Your task to perform on an android device: set an alarm Image 0: 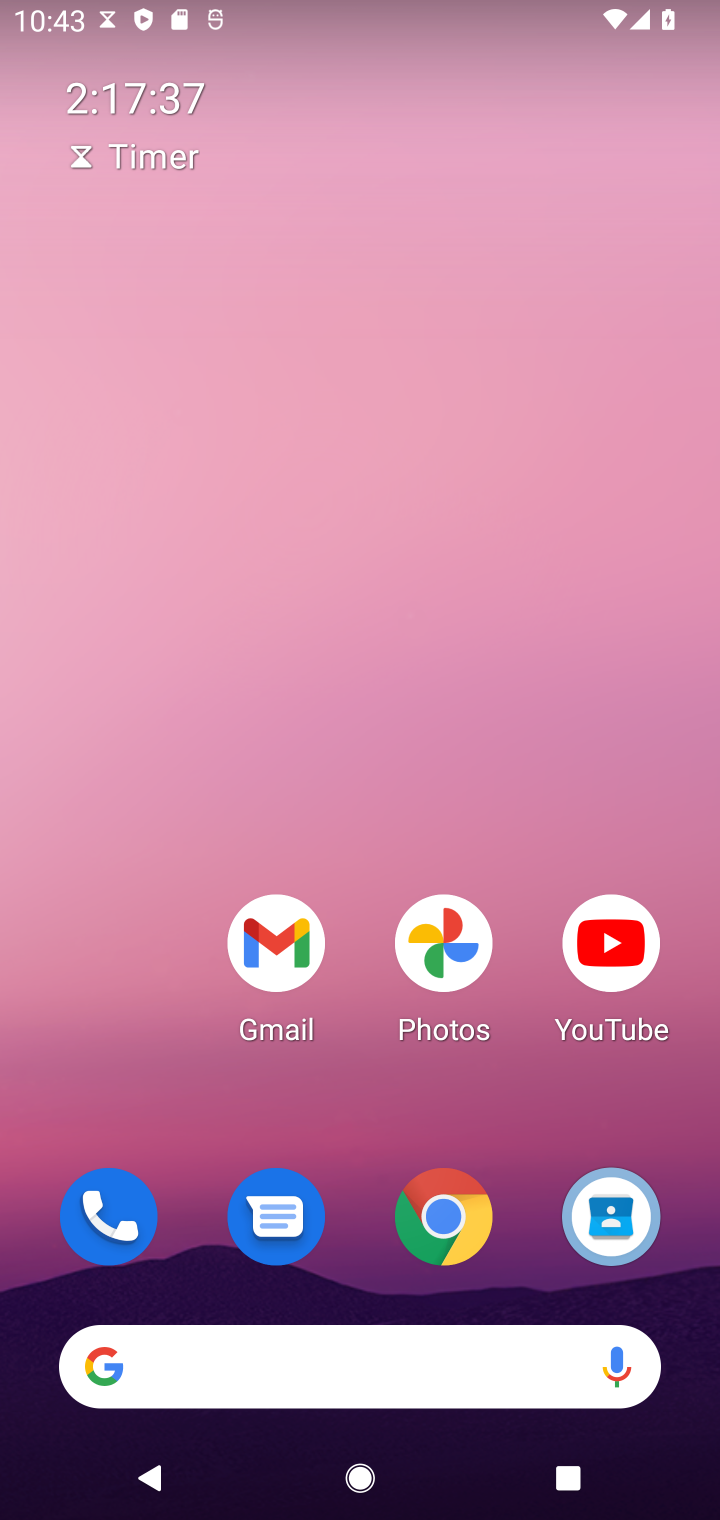
Step 0: drag from (172, 1065) to (282, 6)
Your task to perform on an android device: set an alarm Image 1: 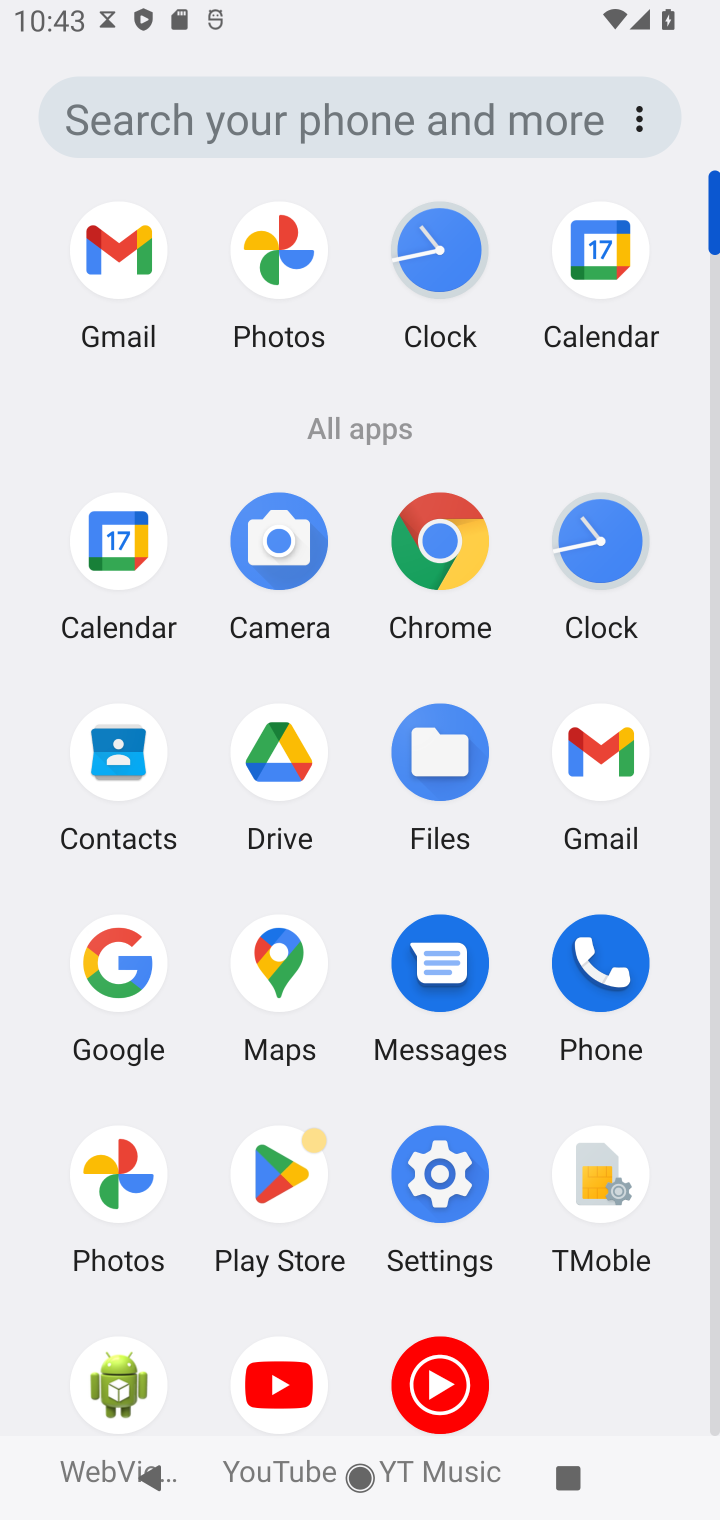
Step 1: click (594, 544)
Your task to perform on an android device: set an alarm Image 2: 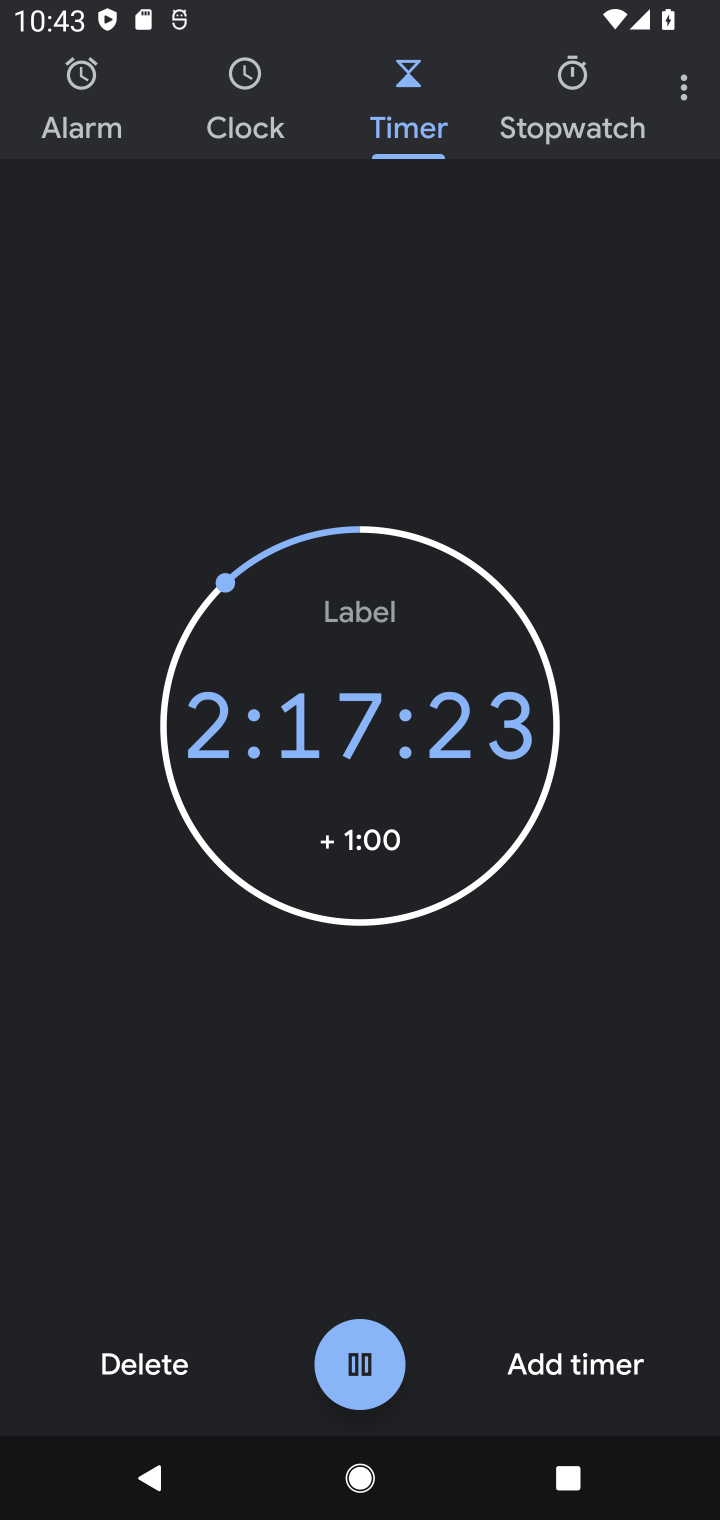
Step 2: click (110, 106)
Your task to perform on an android device: set an alarm Image 3: 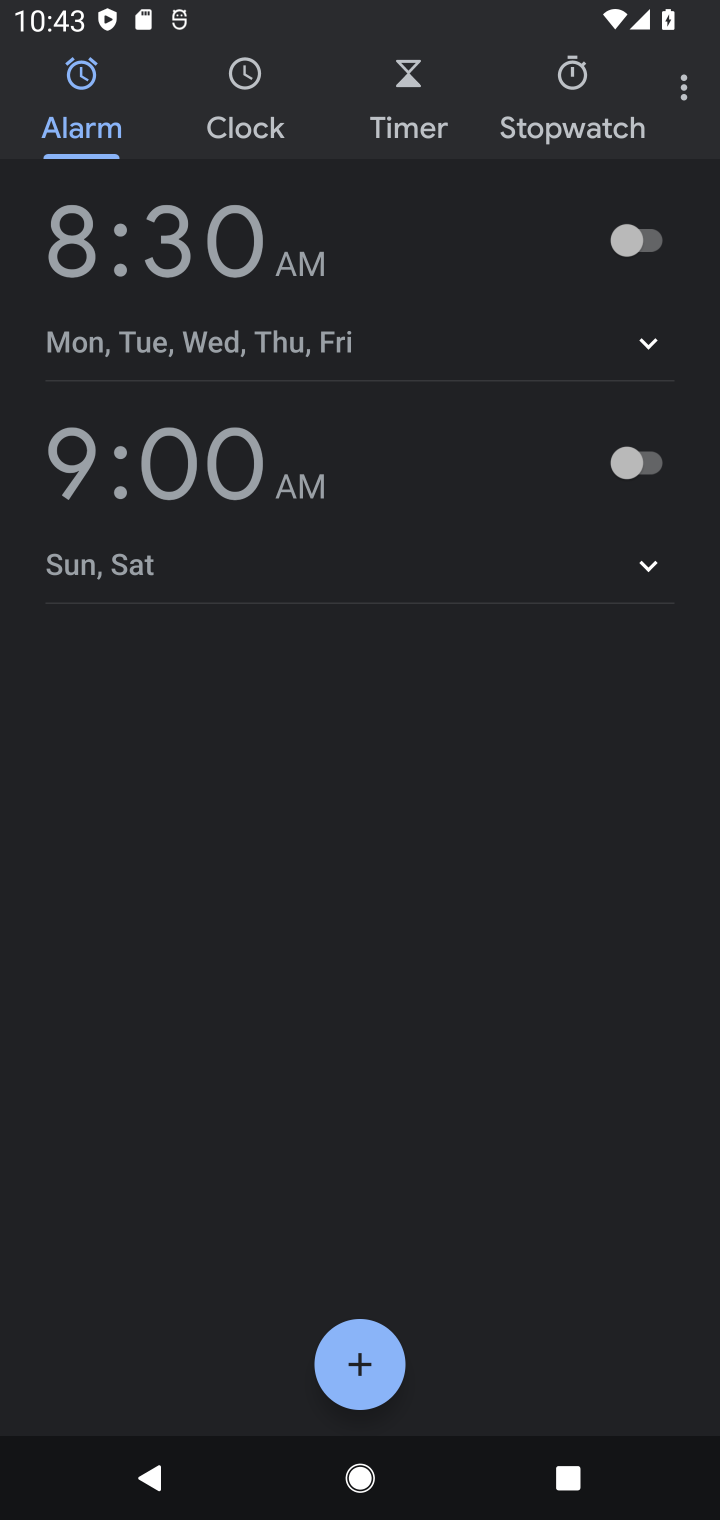
Step 3: click (654, 256)
Your task to perform on an android device: set an alarm Image 4: 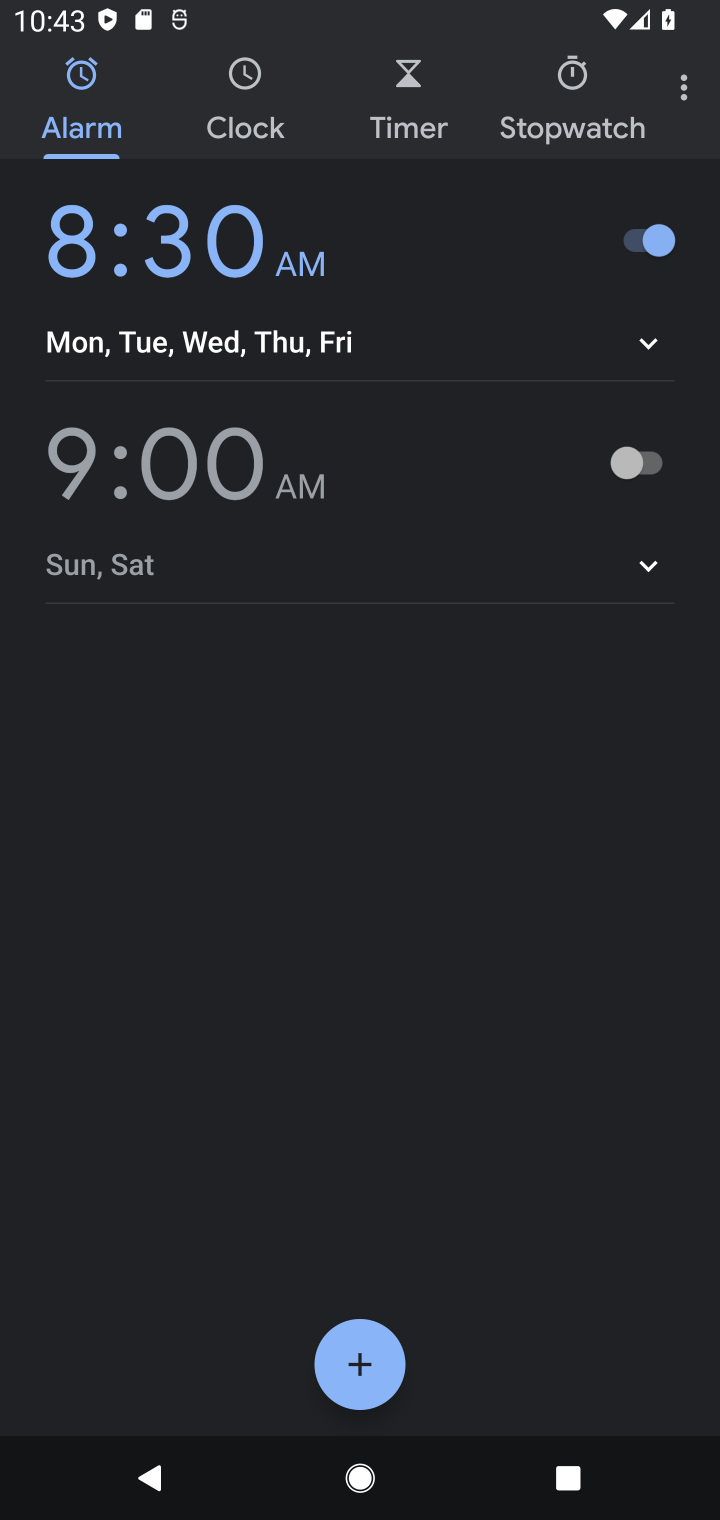
Step 4: task complete